Your task to perform on an android device: Open Chrome and go to settings Image 0: 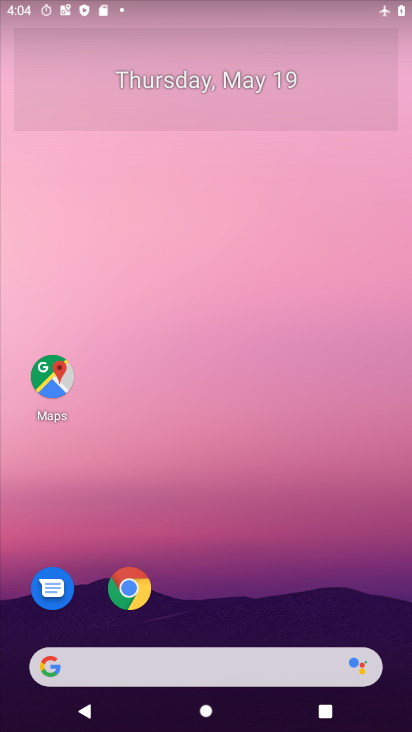
Step 0: click (137, 602)
Your task to perform on an android device: Open Chrome and go to settings Image 1: 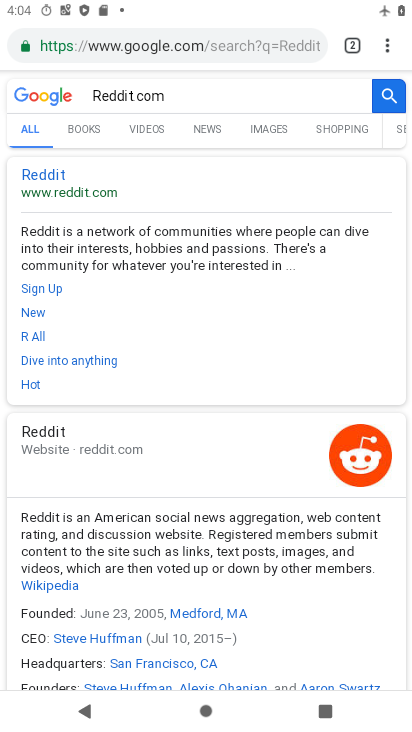
Step 1: click (386, 57)
Your task to perform on an android device: Open Chrome and go to settings Image 2: 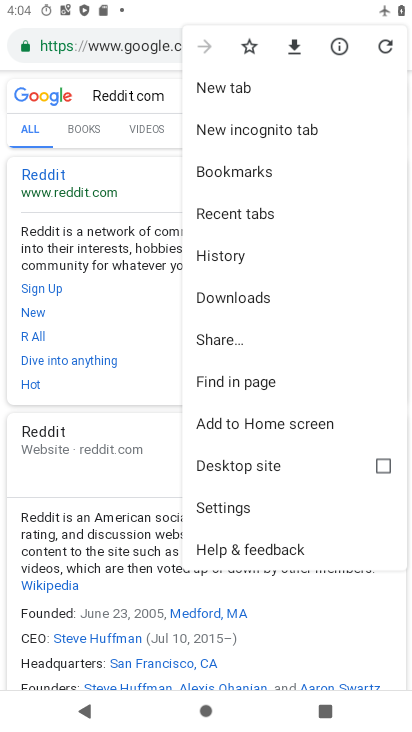
Step 2: click (239, 514)
Your task to perform on an android device: Open Chrome and go to settings Image 3: 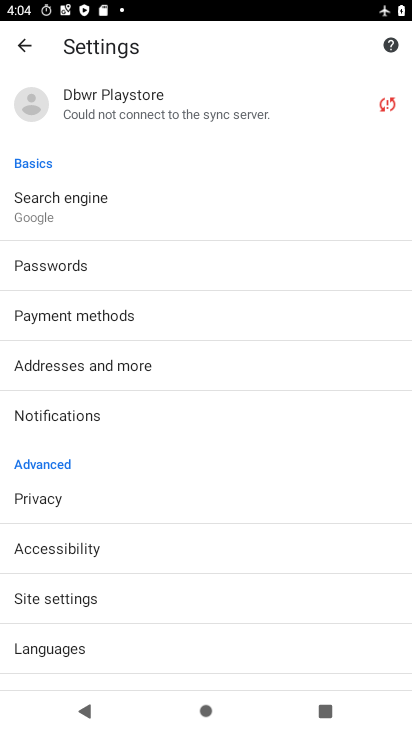
Step 3: task complete